Your task to perform on an android device: Do I have any events tomorrow? Image 0: 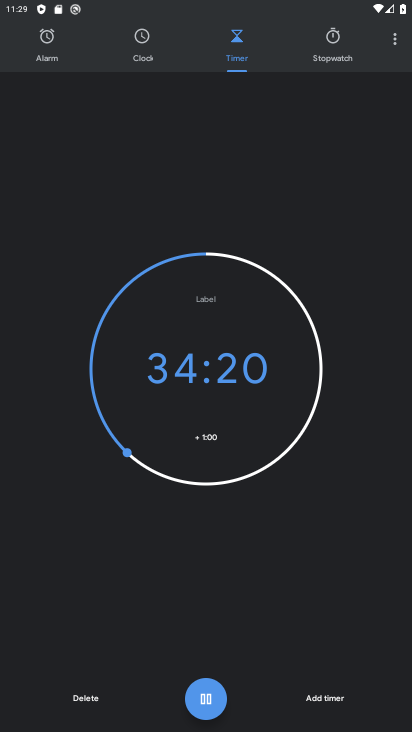
Step 0: press home button
Your task to perform on an android device: Do I have any events tomorrow? Image 1: 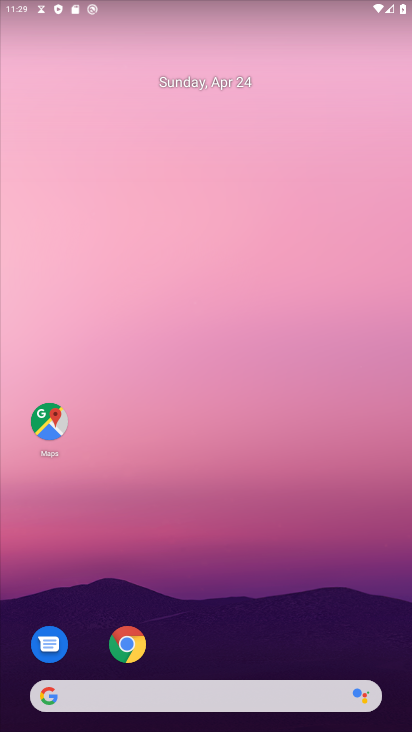
Step 1: drag from (369, 364) to (368, 37)
Your task to perform on an android device: Do I have any events tomorrow? Image 2: 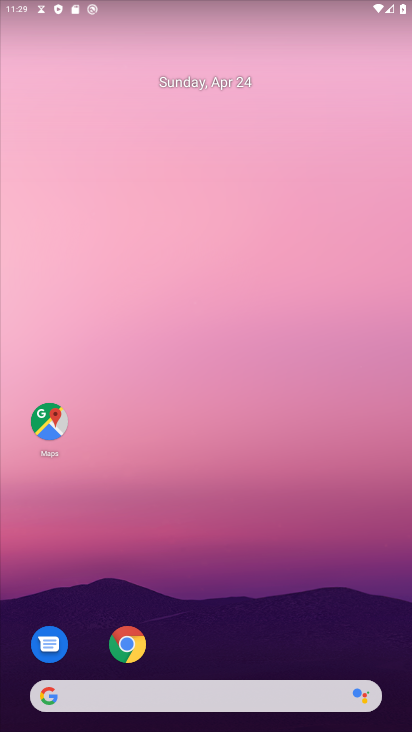
Step 2: drag from (373, 636) to (357, 16)
Your task to perform on an android device: Do I have any events tomorrow? Image 3: 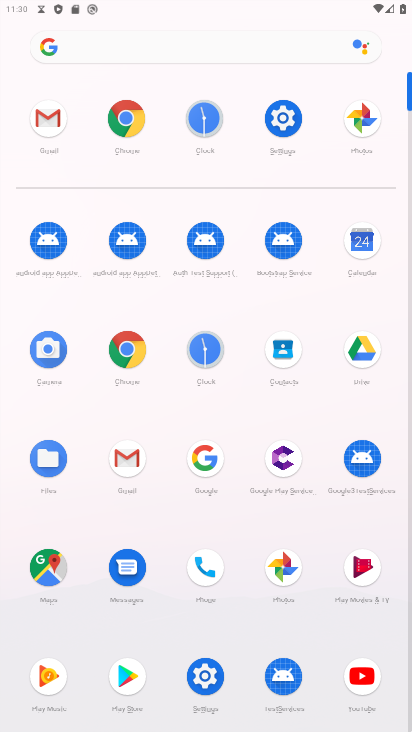
Step 3: click (363, 250)
Your task to perform on an android device: Do I have any events tomorrow? Image 4: 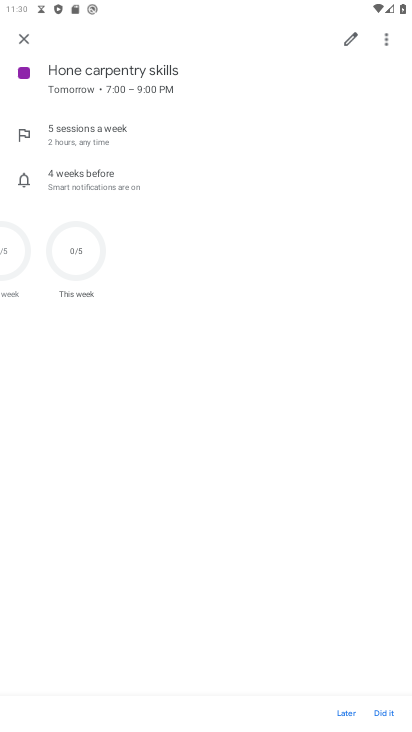
Step 4: click (21, 35)
Your task to perform on an android device: Do I have any events tomorrow? Image 5: 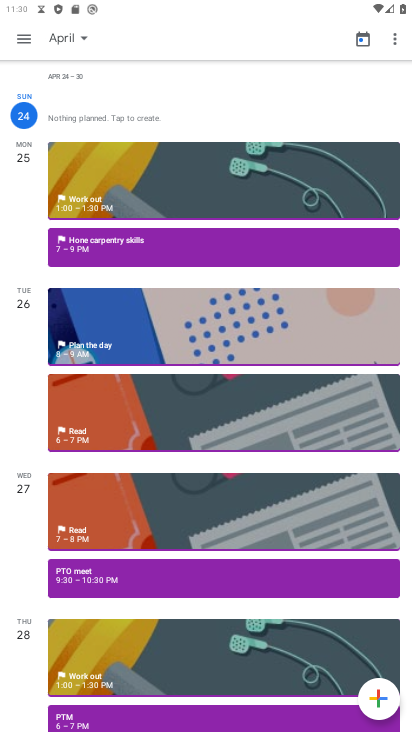
Step 5: click (120, 250)
Your task to perform on an android device: Do I have any events tomorrow? Image 6: 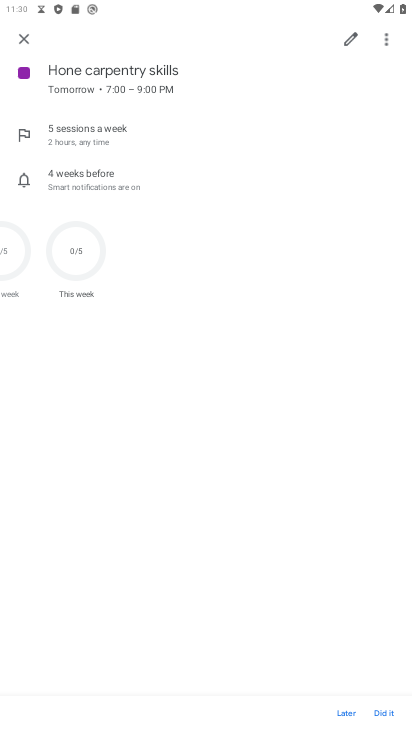
Step 6: task complete